Your task to perform on an android device: change timer sound Image 0: 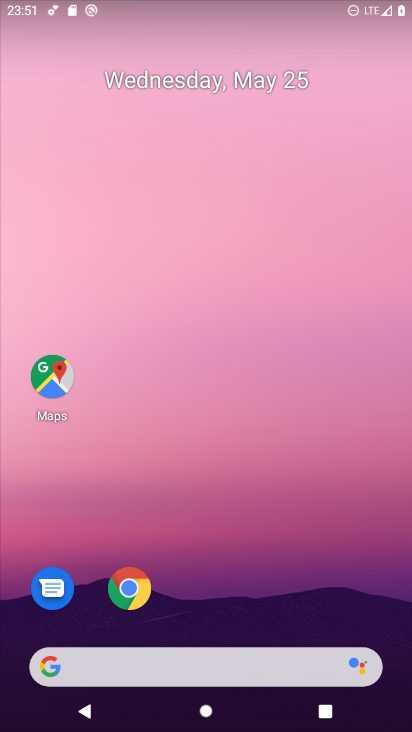
Step 0: drag from (238, 566) to (166, 205)
Your task to perform on an android device: change timer sound Image 1: 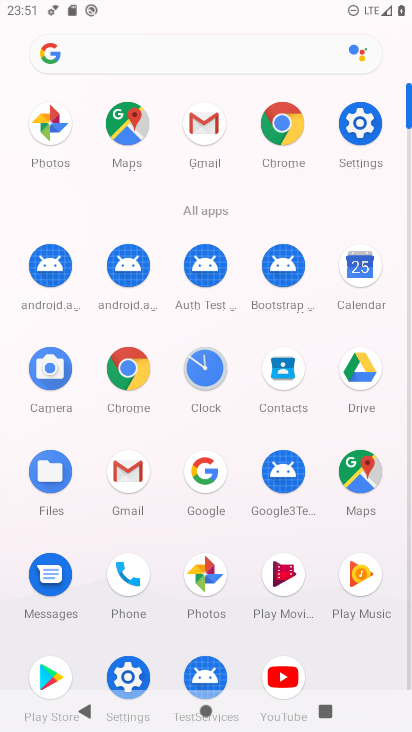
Step 1: click (204, 363)
Your task to perform on an android device: change timer sound Image 2: 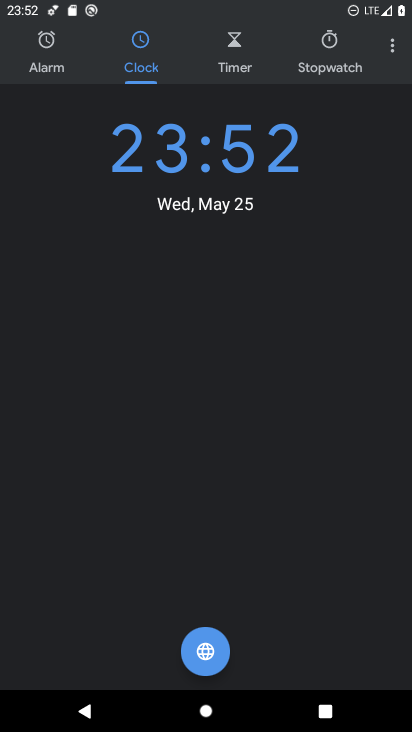
Step 2: click (234, 53)
Your task to perform on an android device: change timer sound Image 3: 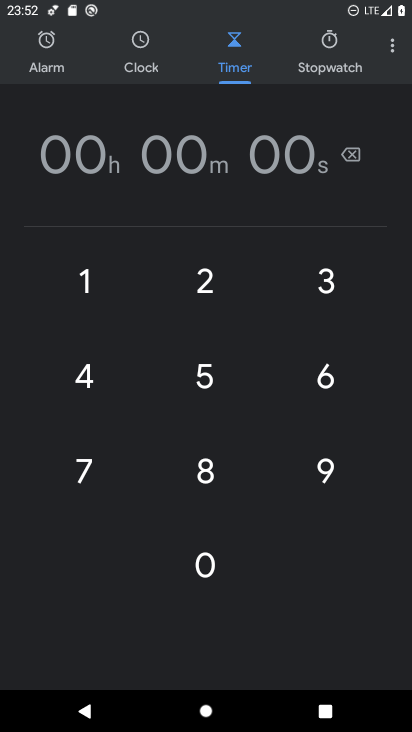
Step 3: click (94, 287)
Your task to perform on an android device: change timer sound Image 4: 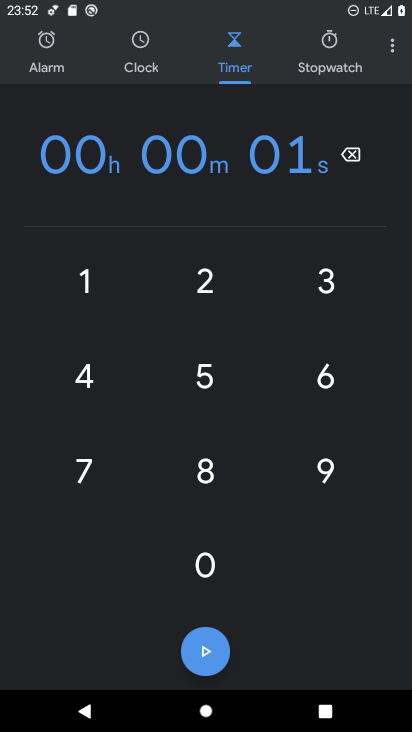
Step 4: click (94, 287)
Your task to perform on an android device: change timer sound Image 5: 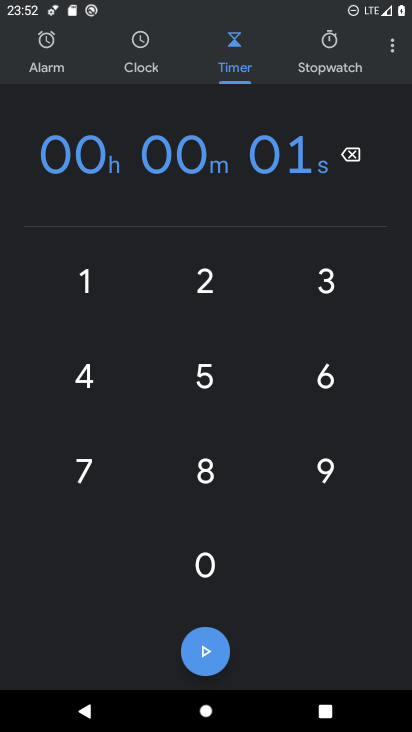
Step 5: click (94, 287)
Your task to perform on an android device: change timer sound Image 6: 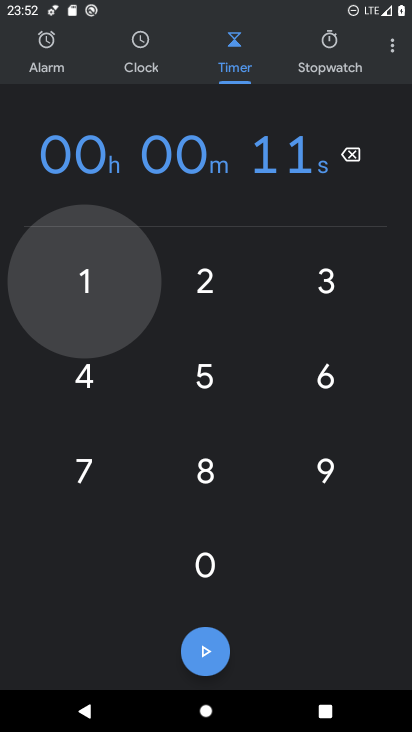
Step 6: click (94, 287)
Your task to perform on an android device: change timer sound Image 7: 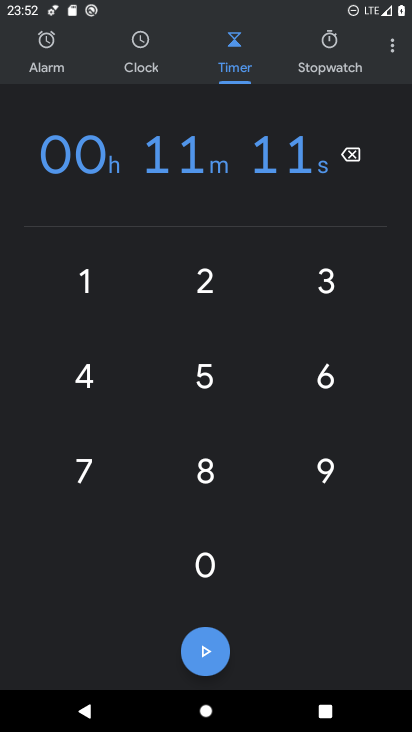
Step 7: click (94, 287)
Your task to perform on an android device: change timer sound Image 8: 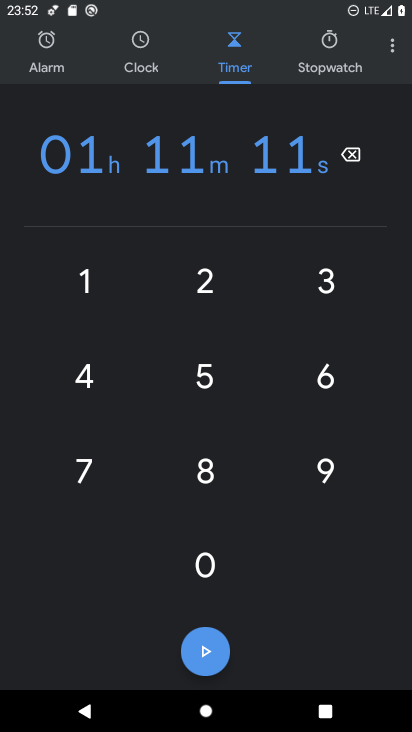
Step 8: click (94, 287)
Your task to perform on an android device: change timer sound Image 9: 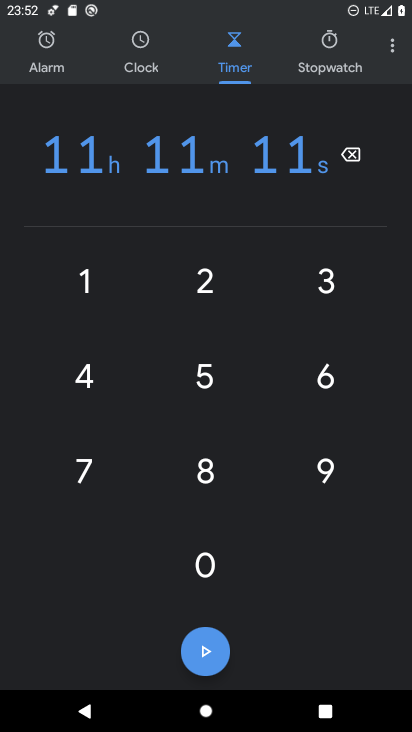
Step 9: task complete